Your task to perform on an android device: Open Amazon Image 0: 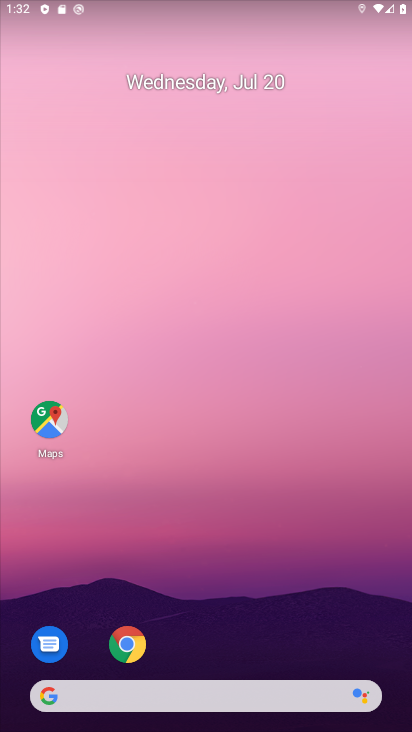
Step 0: click (130, 645)
Your task to perform on an android device: Open Amazon Image 1: 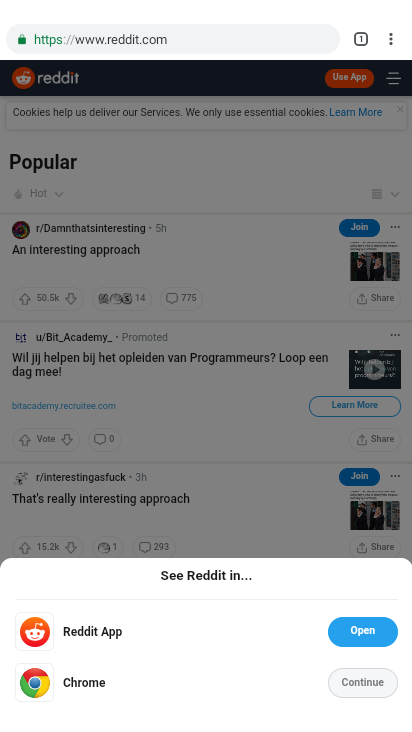
Step 1: click (255, 50)
Your task to perform on an android device: Open Amazon Image 2: 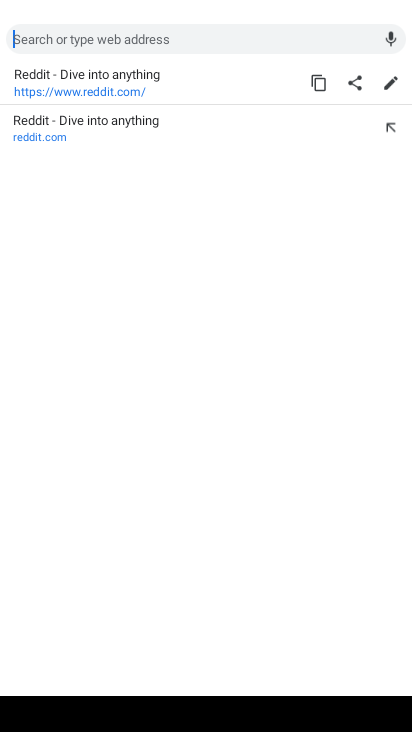
Step 2: type "amazon"
Your task to perform on an android device: Open Amazon Image 3: 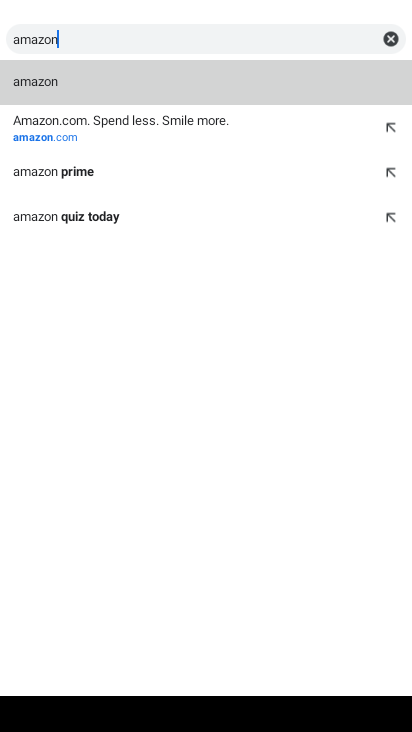
Step 3: click (26, 90)
Your task to perform on an android device: Open Amazon Image 4: 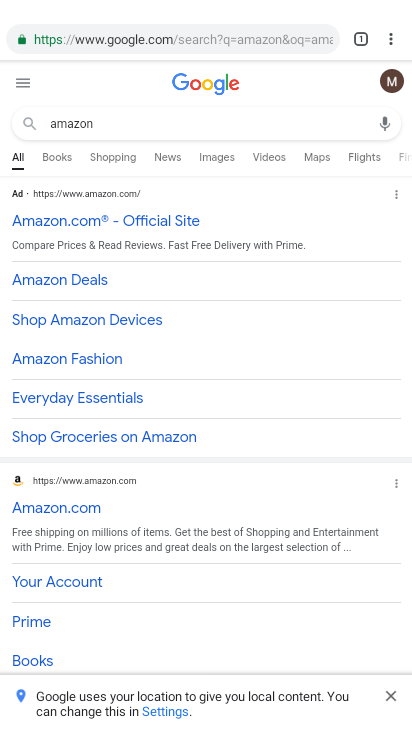
Step 4: click (57, 223)
Your task to perform on an android device: Open Amazon Image 5: 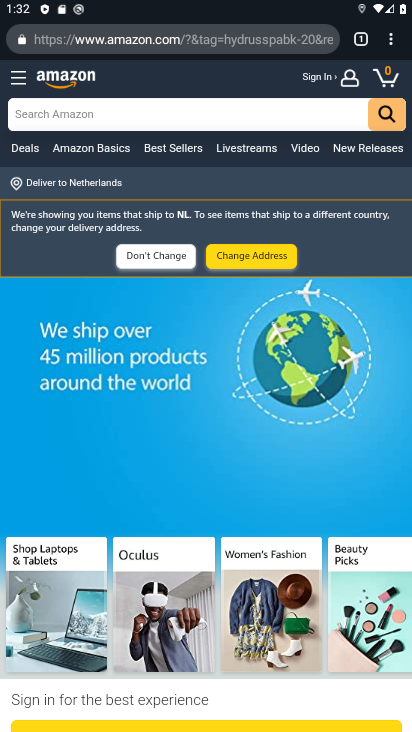
Step 5: task complete